Your task to perform on an android device: check android version Image 0: 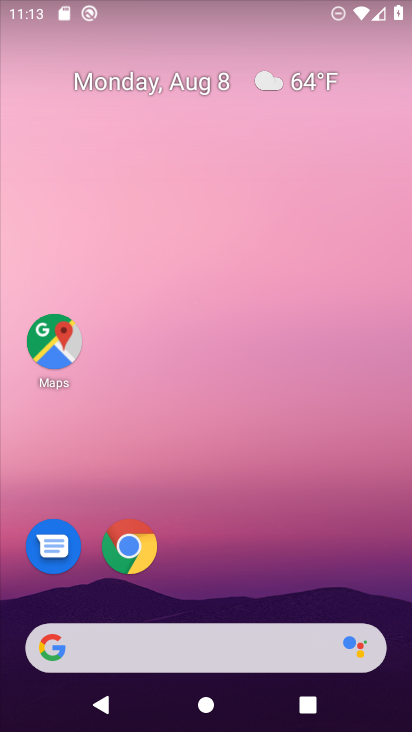
Step 0: drag from (219, 589) to (277, 67)
Your task to perform on an android device: check android version Image 1: 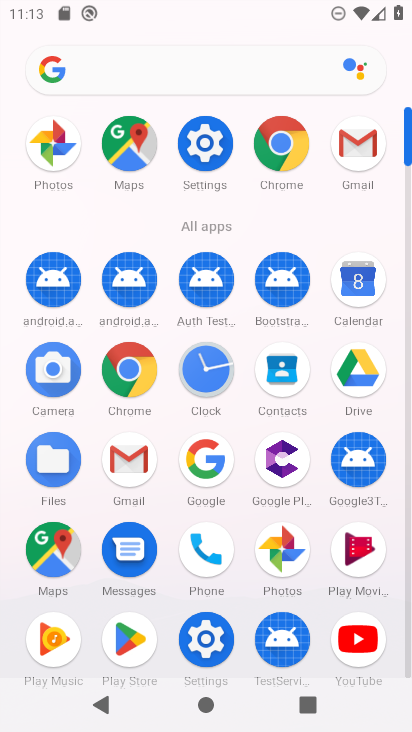
Step 1: press home button
Your task to perform on an android device: check android version Image 2: 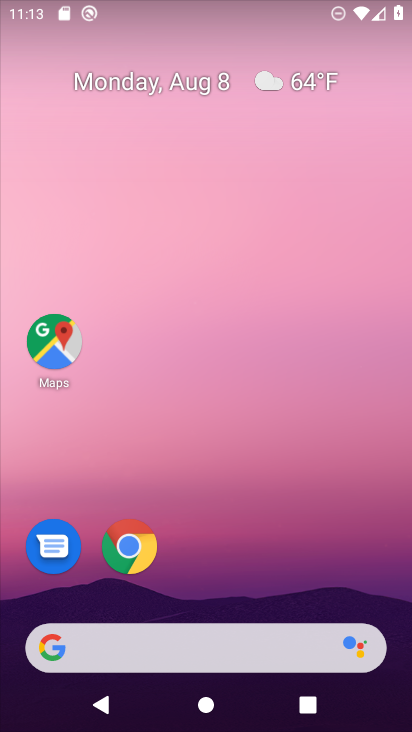
Step 2: press home button
Your task to perform on an android device: check android version Image 3: 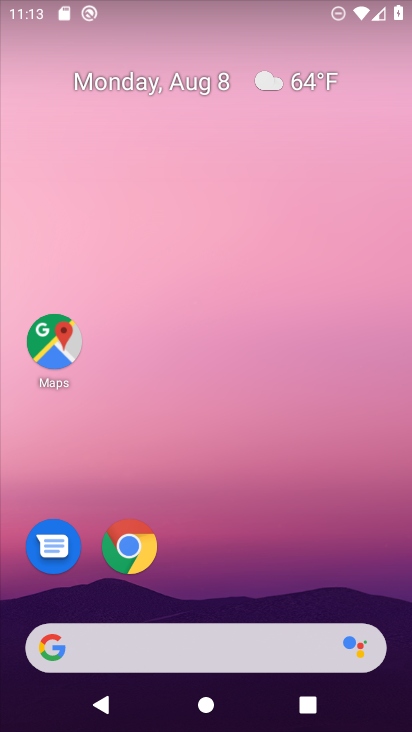
Step 3: drag from (227, 583) to (216, 32)
Your task to perform on an android device: check android version Image 4: 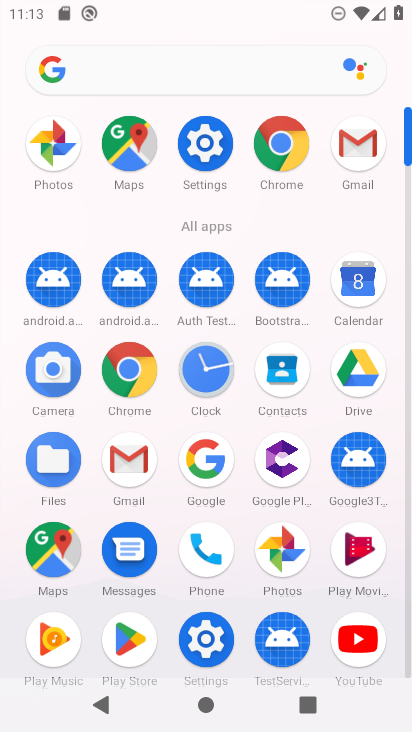
Step 4: click (202, 630)
Your task to perform on an android device: check android version Image 5: 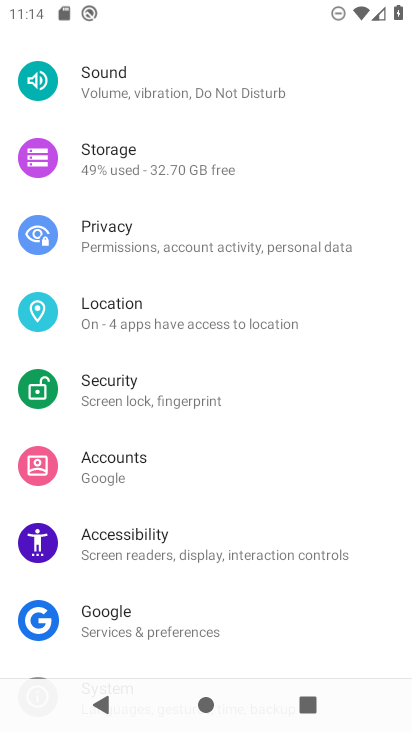
Step 5: drag from (158, 607) to (156, 211)
Your task to perform on an android device: check android version Image 6: 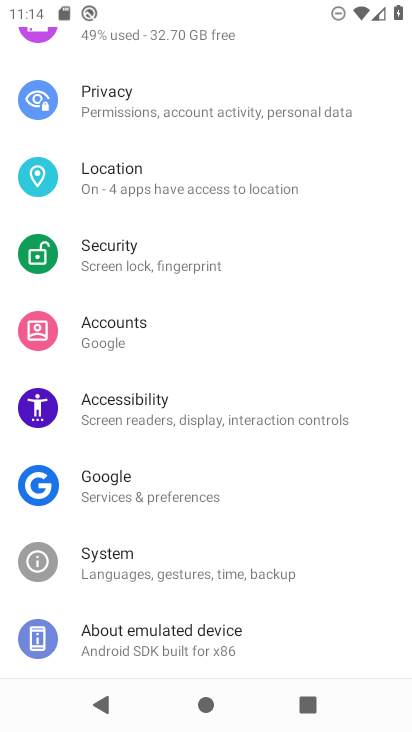
Step 6: click (199, 624)
Your task to perform on an android device: check android version Image 7: 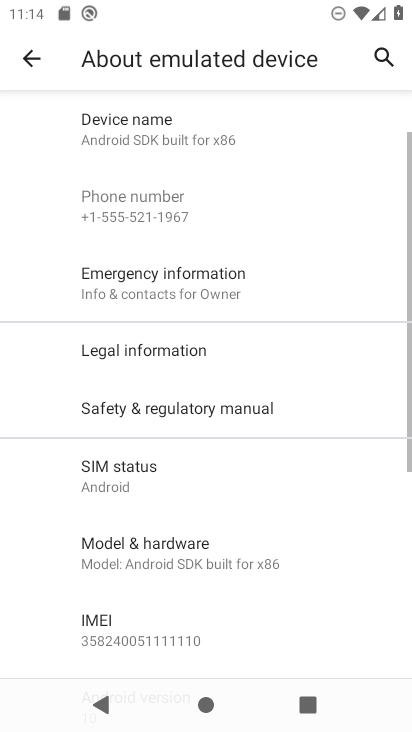
Step 7: drag from (188, 540) to (223, 155)
Your task to perform on an android device: check android version Image 8: 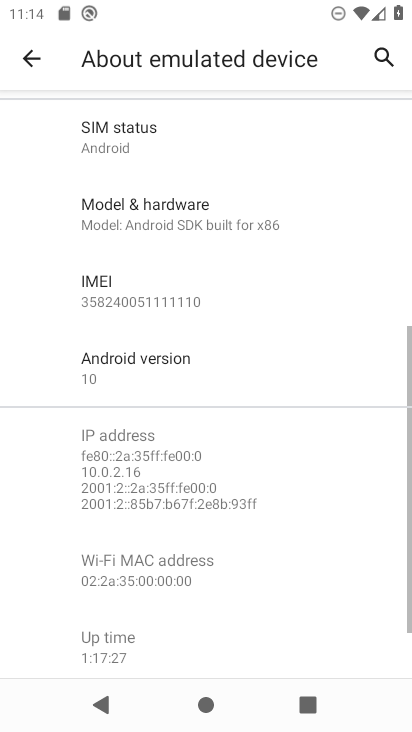
Step 8: click (235, 369)
Your task to perform on an android device: check android version Image 9: 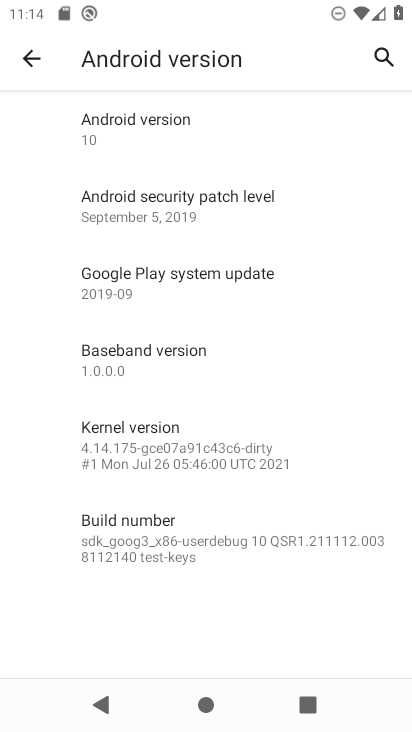
Step 9: click (120, 121)
Your task to perform on an android device: check android version Image 10: 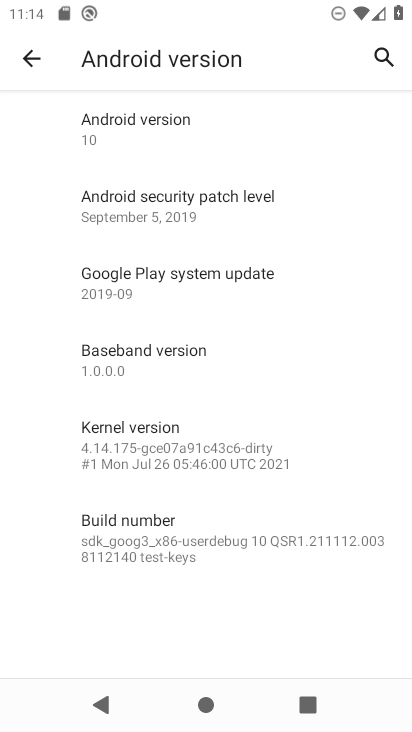
Step 10: task complete